Your task to perform on an android device: Show me the alarms in the clock app Image 0: 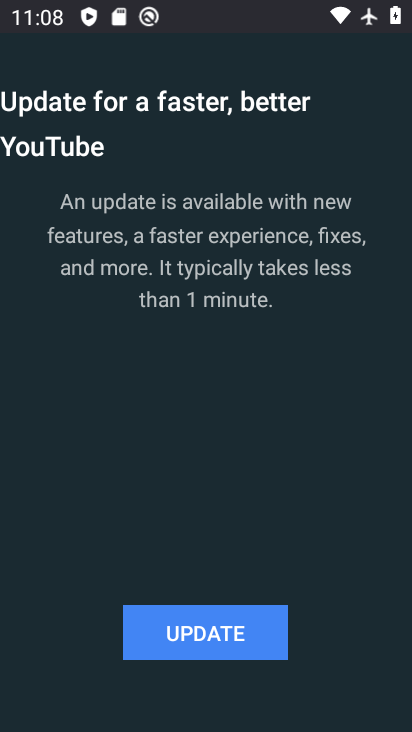
Step 0: press home button
Your task to perform on an android device: Show me the alarms in the clock app Image 1: 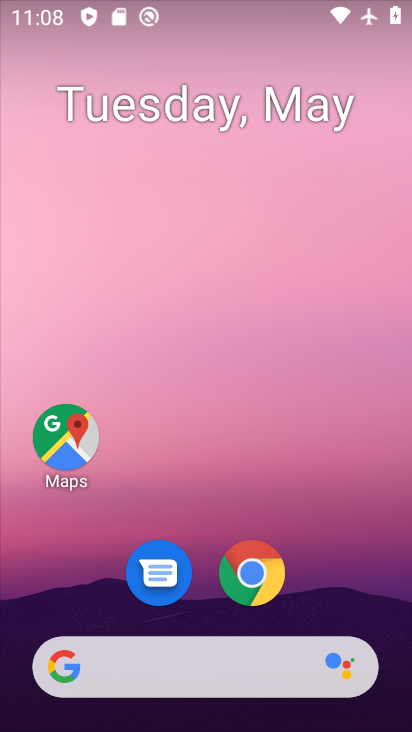
Step 1: drag from (247, 642) to (243, 356)
Your task to perform on an android device: Show me the alarms in the clock app Image 2: 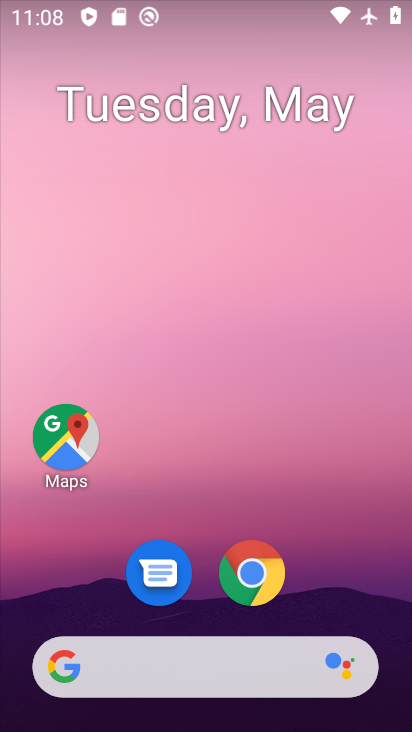
Step 2: drag from (132, 557) to (158, 314)
Your task to perform on an android device: Show me the alarms in the clock app Image 3: 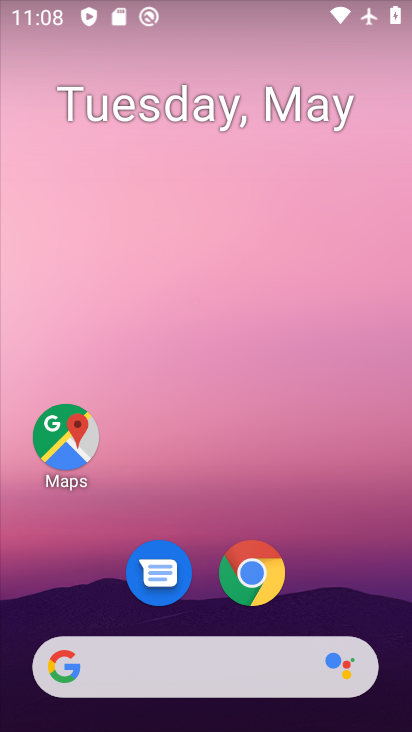
Step 3: drag from (214, 642) to (191, 210)
Your task to perform on an android device: Show me the alarms in the clock app Image 4: 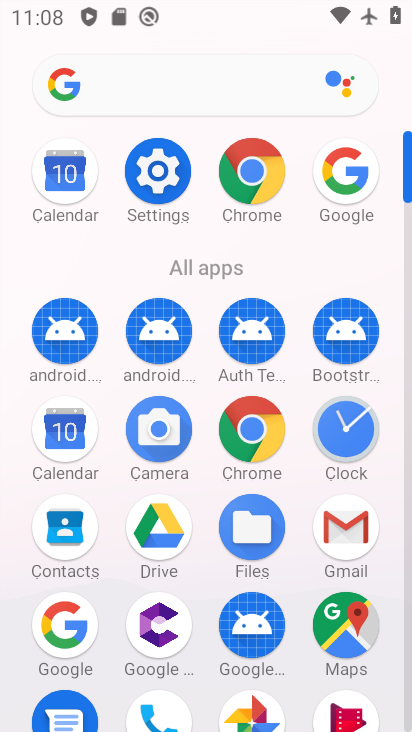
Step 4: click (337, 438)
Your task to perform on an android device: Show me the alarms in the clock app Image 5: 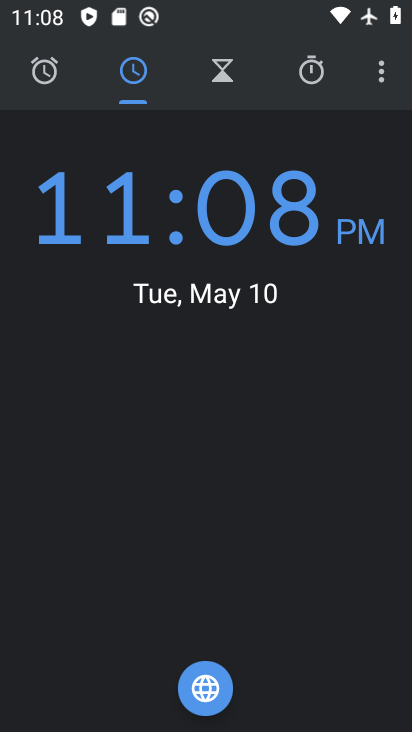
Step 5: click (31, 54)
Your task to perform on an android device: Show me the alarms in the clock app Image 6: 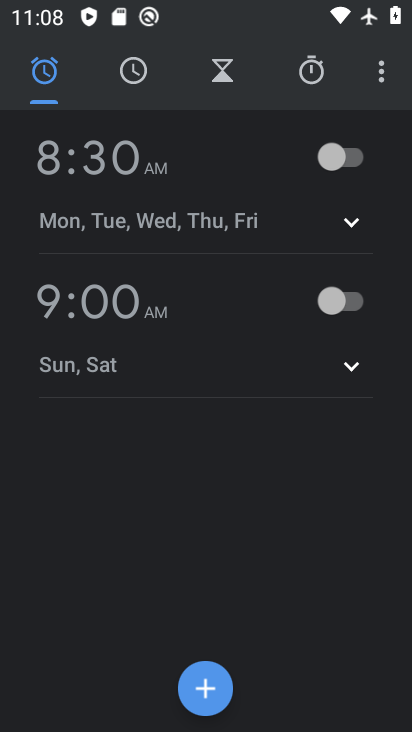
Step 6: task complete